Your task to perform on an android device: Set the phone to "Do not disturb". Image 0: 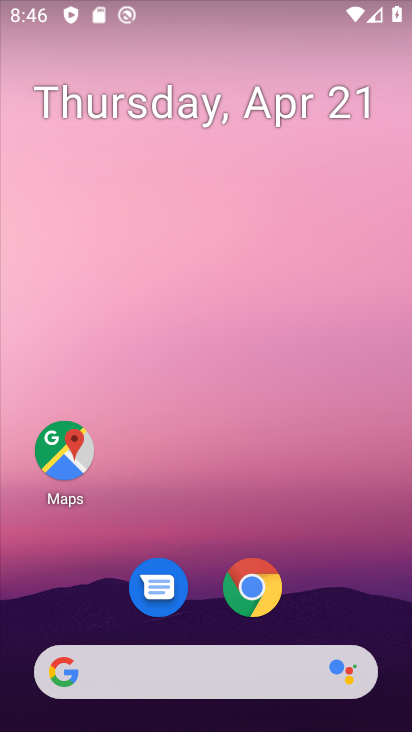
Step 0: drag from (296, 589) to (203, 69)
Your task to perform on an android device: Set the phone to "Do not disturb". Image 1: 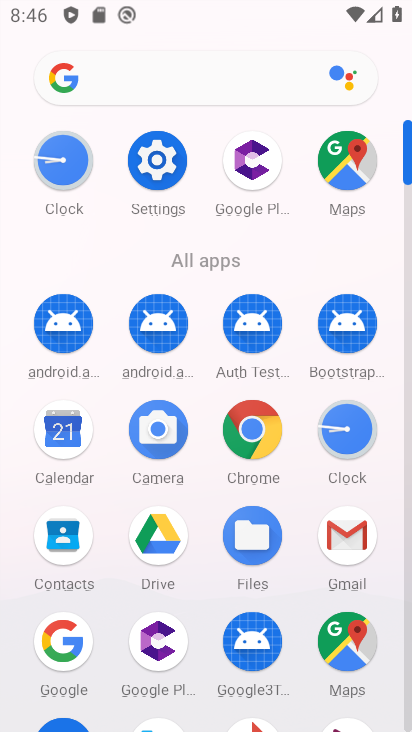
Step 1: click (164, 156)
Your task to perform on an android device: Set the phone to "Do not disturb". Image 2: 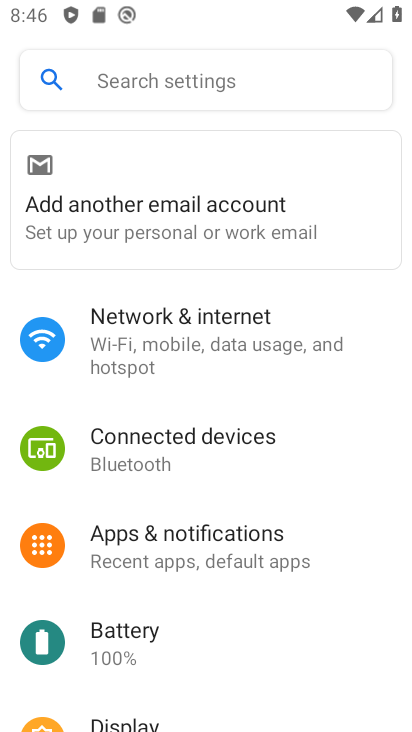
Step 2: drag from (173, 665) to (155, 306)
Your task to perform on an android device: Set the phone to "Do not disturb". Image 3: 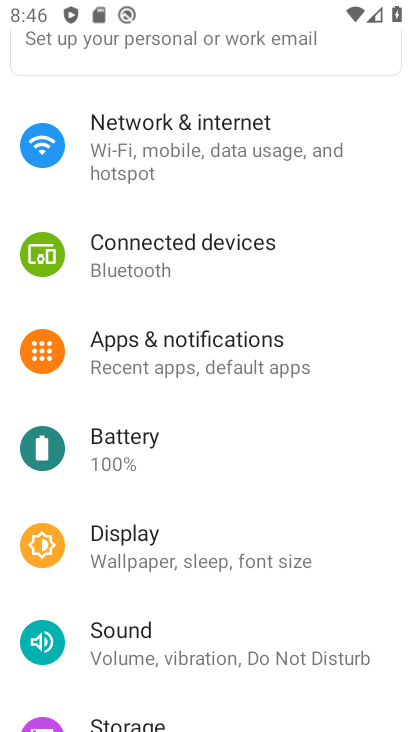
Step 3: click (239, 635)
Your task to perform on an android device: Set the phone to "Do not disturb". Image 4: 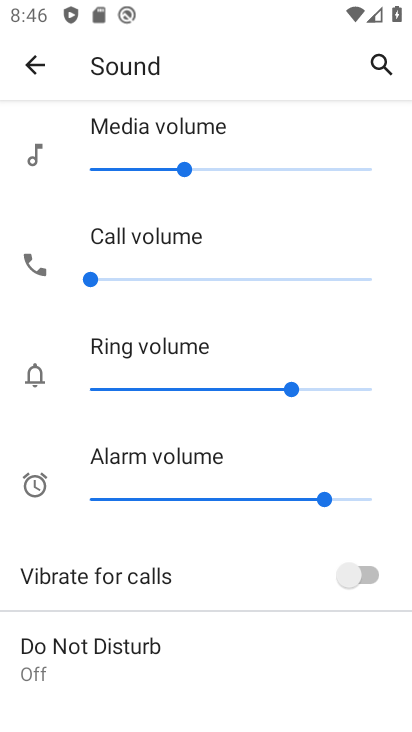
Step 4: click (132, 642)
Your task to perform on an android device: Set the phone to "Do not disturb". Image 5: 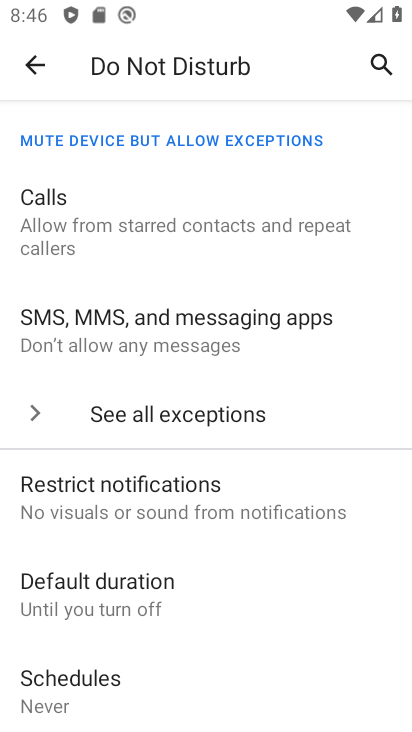
Step 5: drag from (238, 643) to (275, 231)
Your task to perform on an android device: Set the phone to "Do not disturb". Image 6: 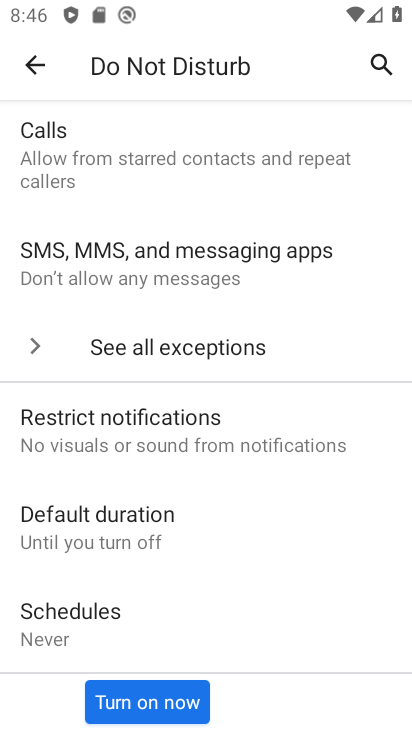
Step 6: click (196, 690)
Your task to perform on an android device: Set the phone to "Do not disturb". Image 7: 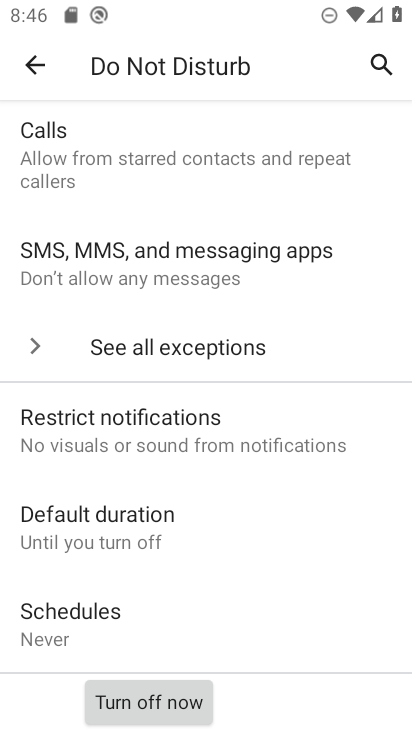
Step 7: task complete